Your task to perform on an android device: open app "Upside-Cash back on gas & food" (install if not already installed) Image 0: 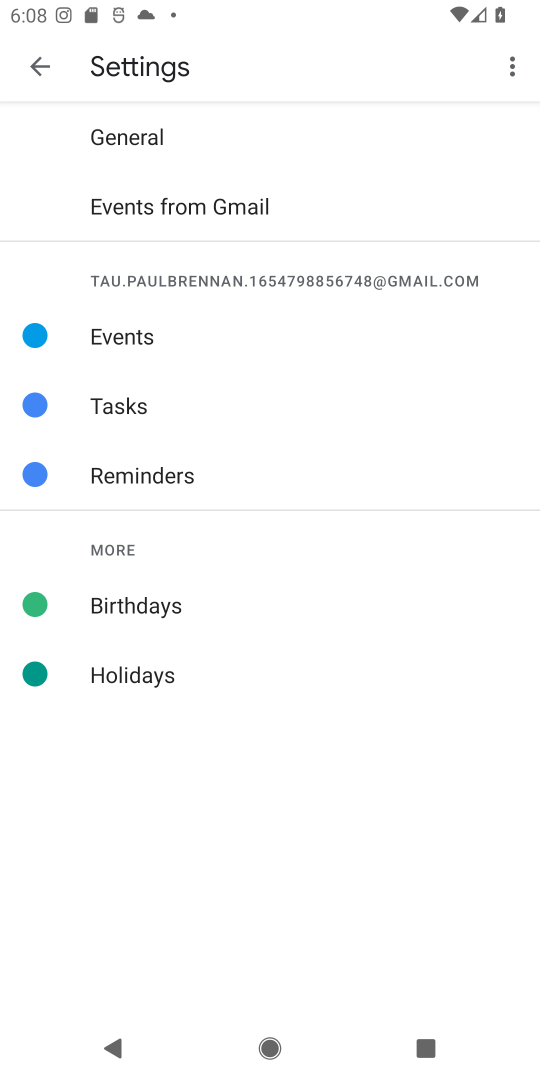
Step 0: press home button
Your task to perform on an android device: open app "Upside-Cash back on gas & food" (install if not already installed) Image 1: 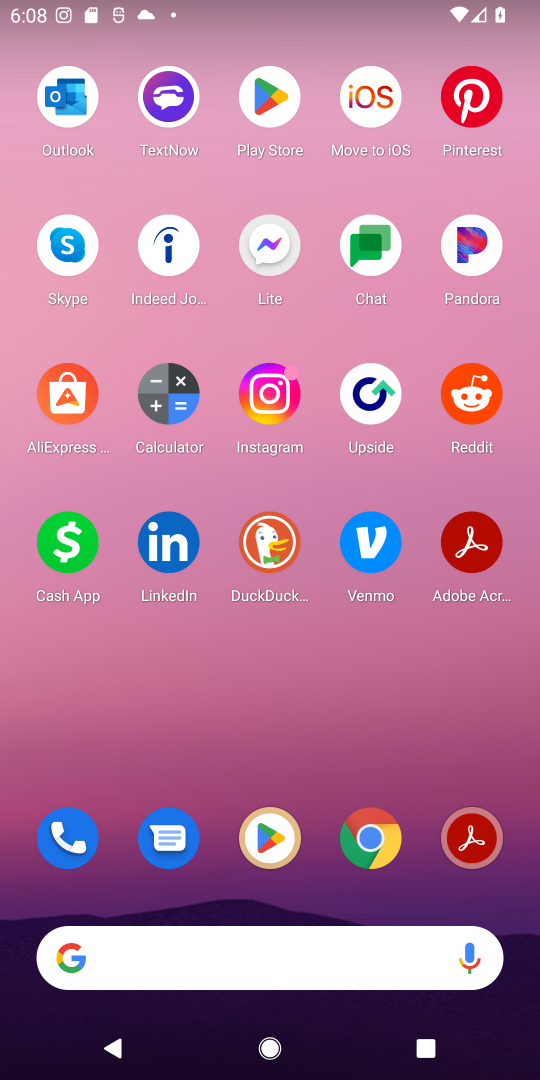
Step 1: click (268, 848)
Your task to perform on an android device: open app "Upside-Cash back on gas & food" (install if not already installed) Image 2: 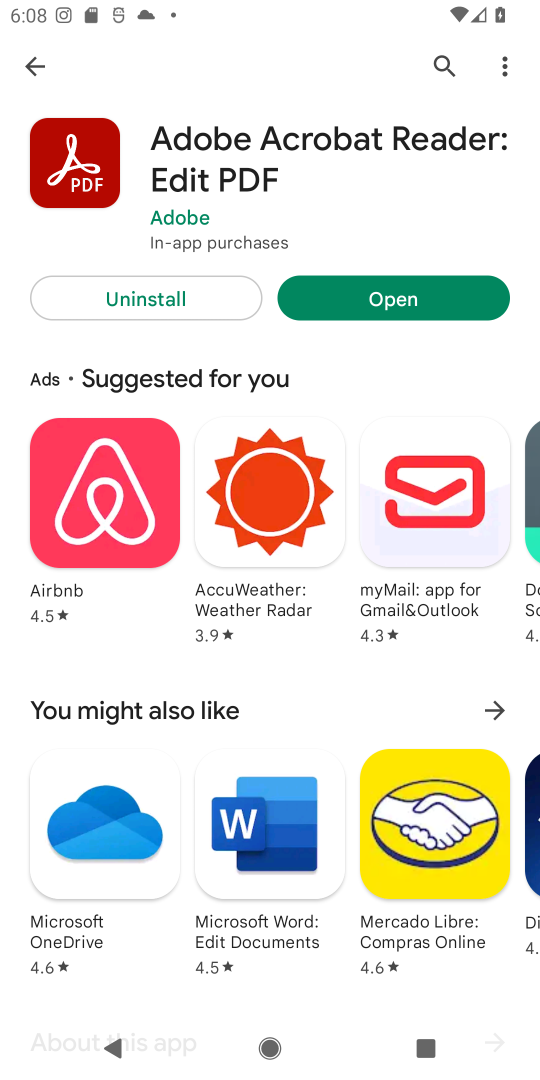
Step 2: click (440, 60)
Your task to perform on an android device: open app "Upside-Cash back on gas & food" (install if not already installed) Image 3: 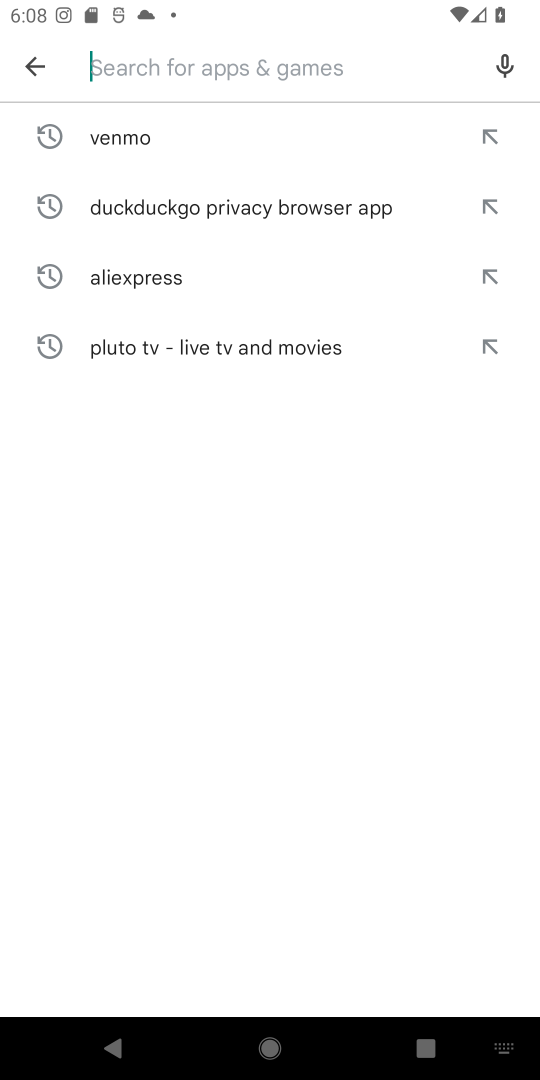
Step 3: type "Upside-Cash back on gas & food"
Your task to perform on an android device: open app "Upside-Cash back on gas & food" (install if not already installed) Image 4: 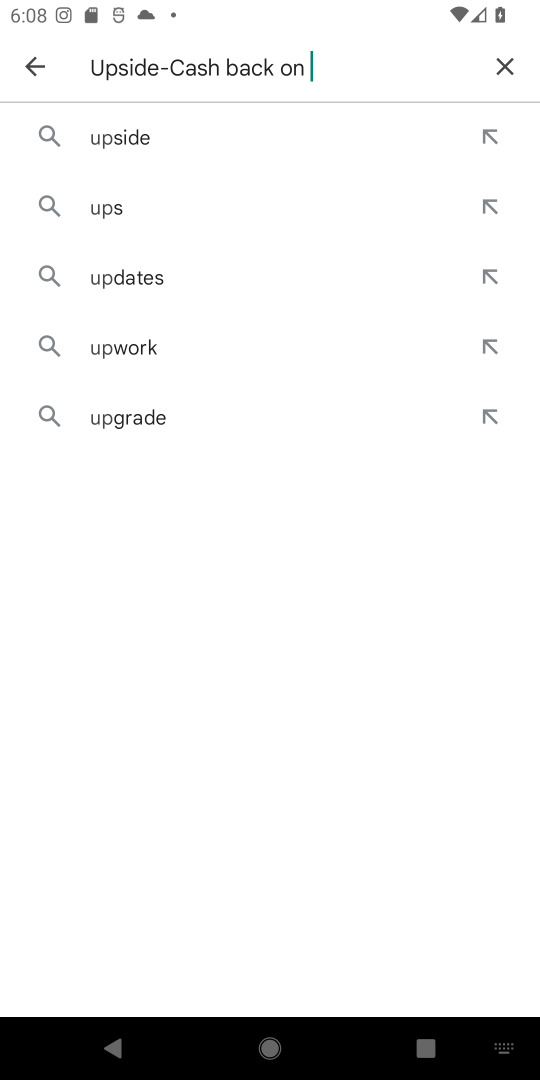
Step 4: type ""
Your task to perform on an android device: open app "Upside-Cash back on gas & food" (install if not already installed) Image 5: 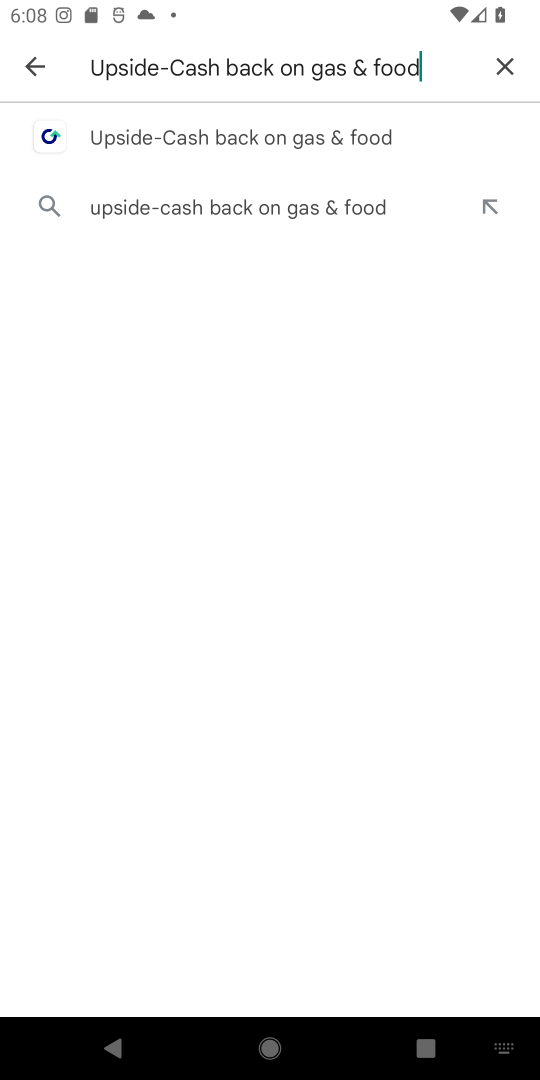
Step 5: click (247, 127)
Your task to perform on an android device: open app "Upside-Cash back on gas & food" (install if not already installed) Image 6: 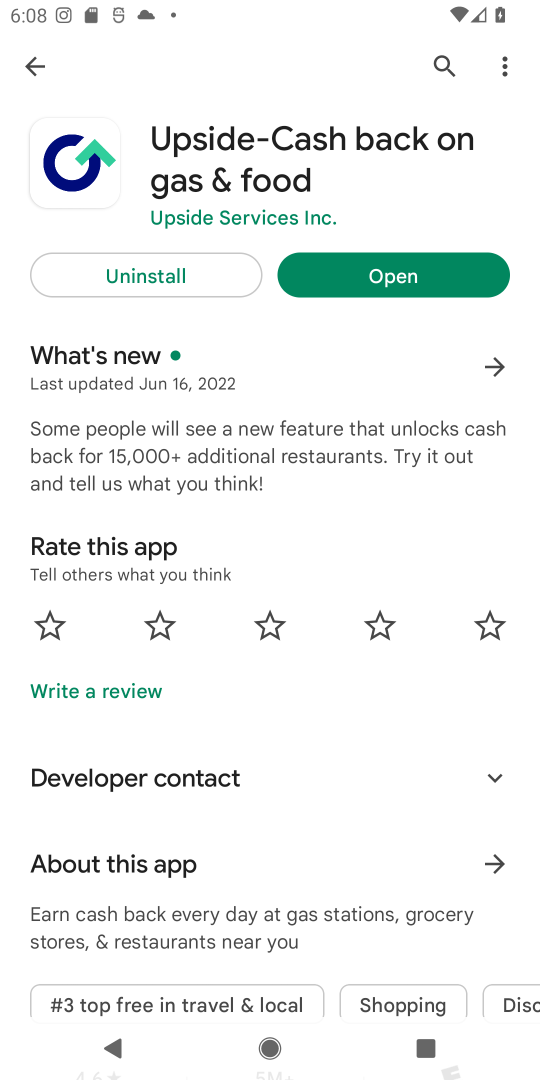
Step 6: click (374, 284)
Your task to perform on an android device: open app "Upside-Cash back on gas & food" (install if not already installed) Image 7: 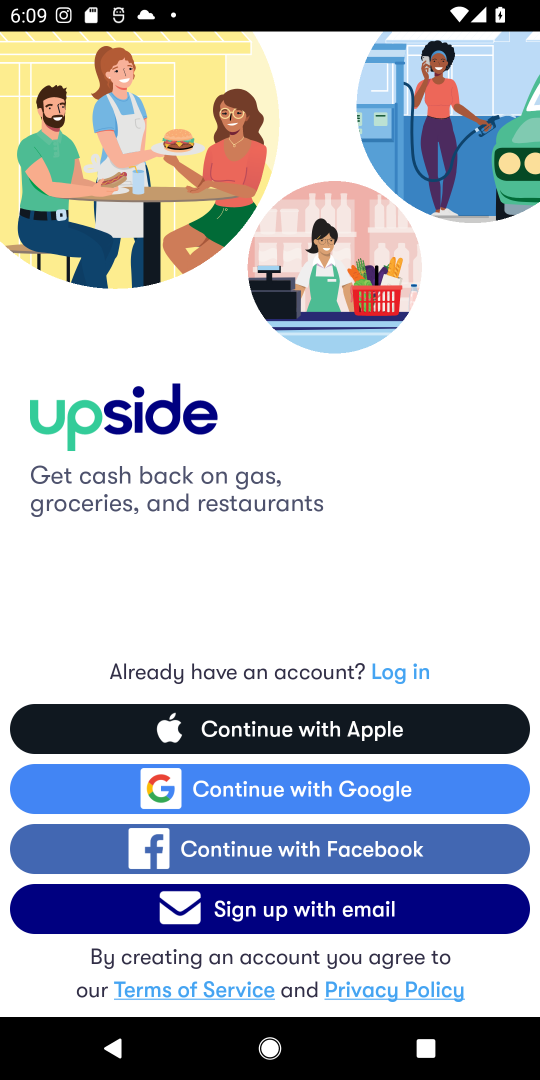
Step 7: task complete